Your task to perform on an android device: Open Youtube and go to "Your channel" Image 0: 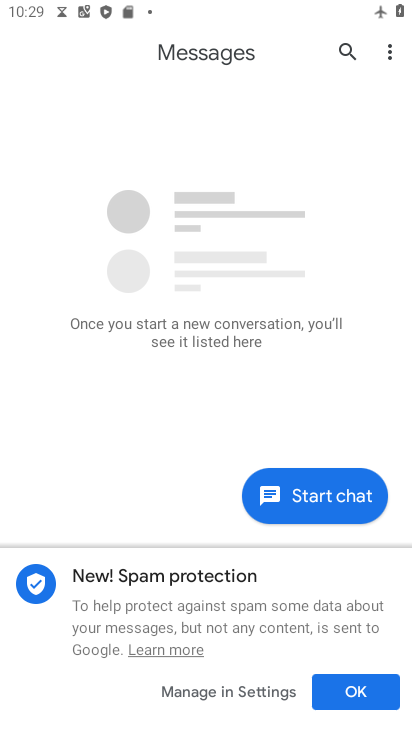
Step 0: press back button
Your task to perform on an android device: Open Youtube and go to "Your channel" Image 1: 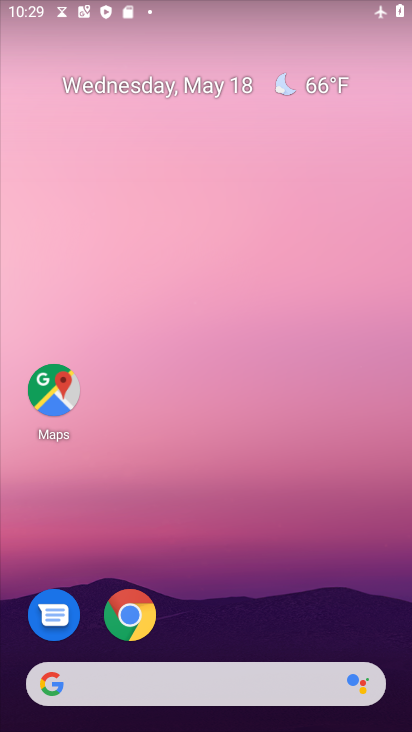
Step 1: drag from (206, 386) to (194, 28)
Your task to perform on an android device: Open Youtube and go to "Your channel" Image 2: 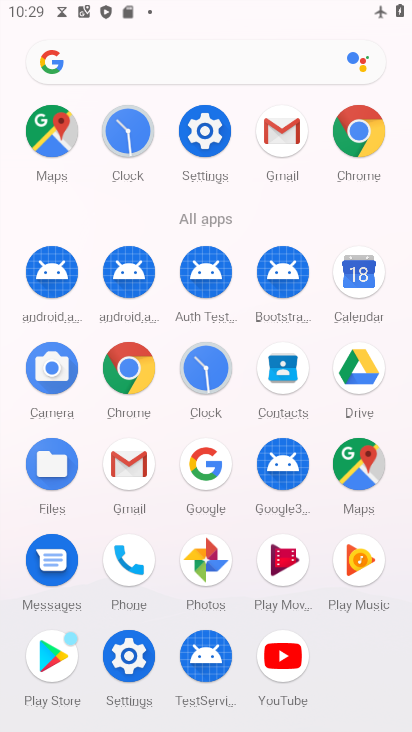
Step 2: drag from (8, 605) to (10, 352)
Your task to perform on an android device: Open Youtube and go to "Your channel" Image 3: 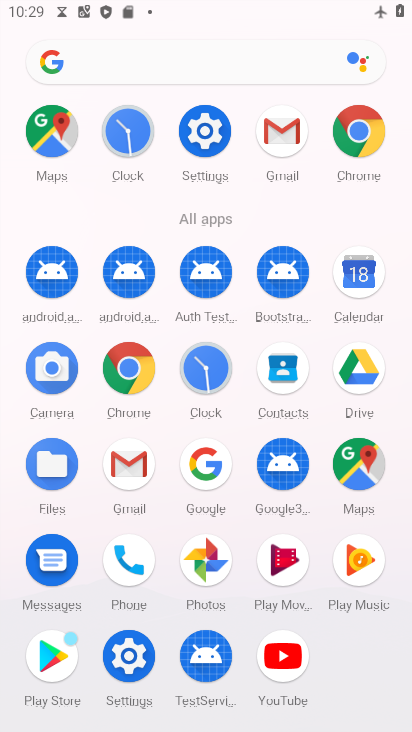
Step 3: click (285, 652)
Your task to perform on an android device: Open Youtube and go to "Your channel" Image 4: 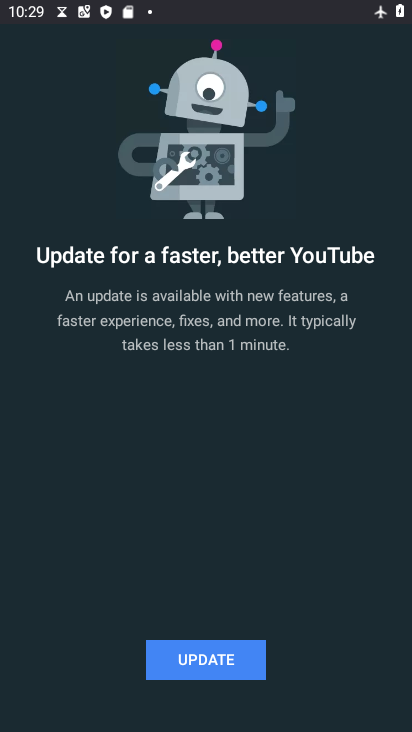
Step 4: click (184, 654)
Your task to perform on an android device: Open Youtube and go to "Your channel" Image 5: 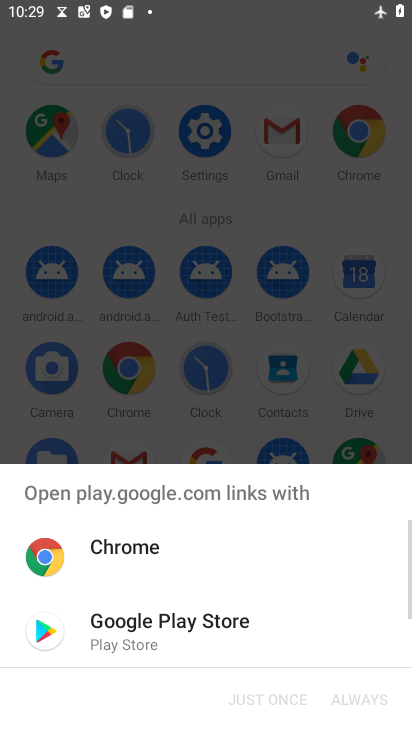
Step 5: click (174, 625)
Your task to perform on an android device: Open Youtube and go to "Your channel" Image 6: 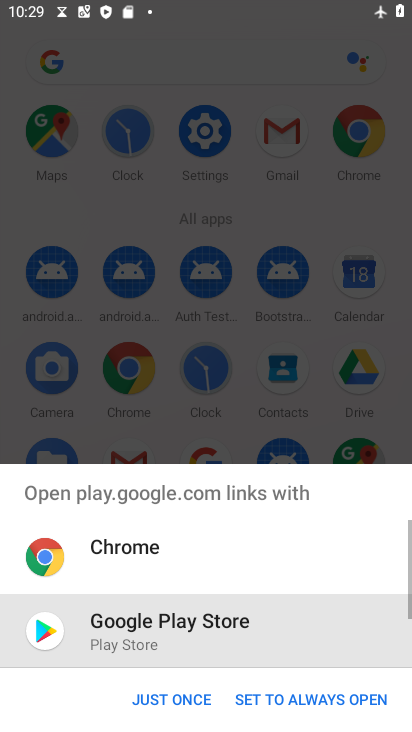
Step 6: click (152, 693)
Your task to perform on an android device: Open Youtube and go to "Your channel" Image 7: 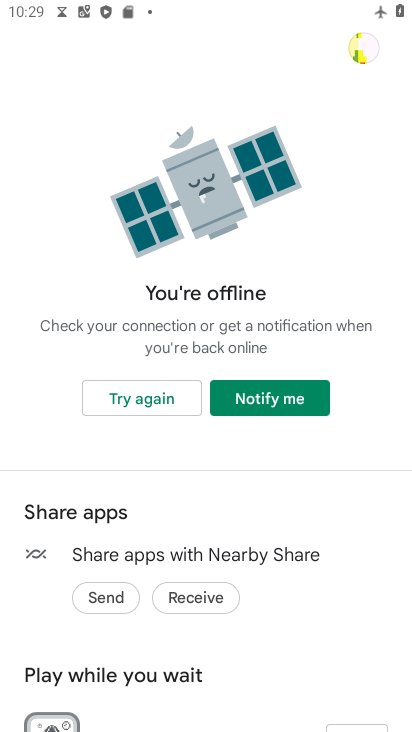
Step 7: click (183, 402)
Your task to perform on an android device: Open Youtube and go to "Your channel" Image 8: 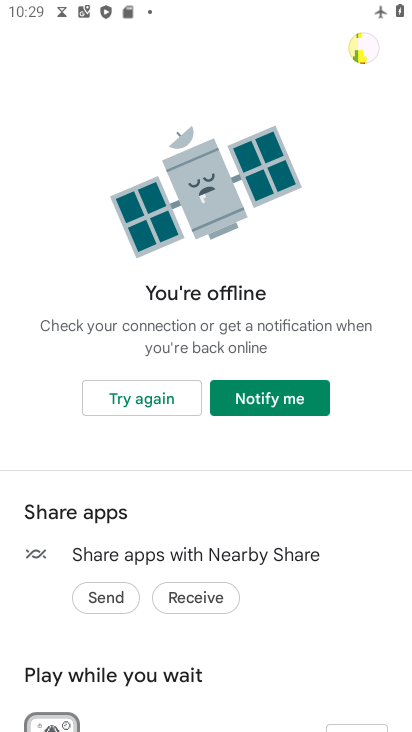
Step 8: task complete